Your task to perform on an android device: change notification settings in the gmail app Image 0: 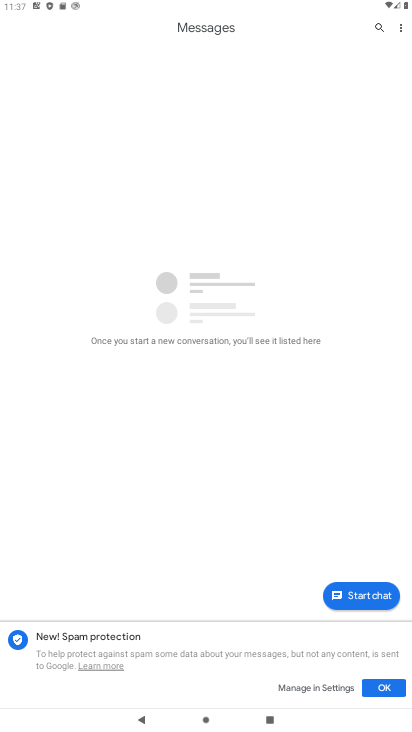
Step 0: drag from (49, 699) to (311, 4)
Your task to perform on an android device: change notification settings in the gmail app Image 1: 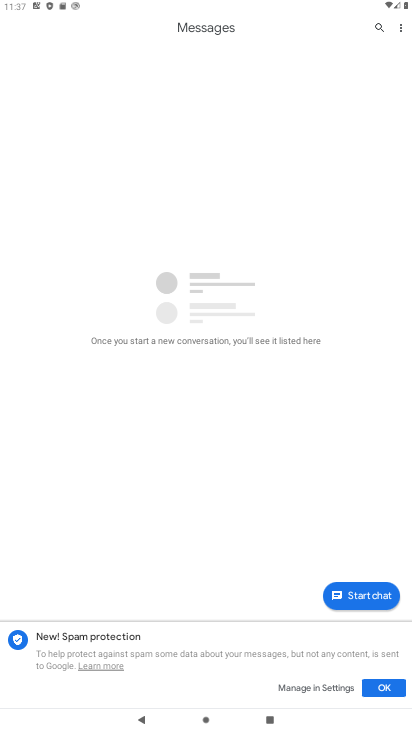
Step 1: press home button
Your task to perform on an android device: change notification settings in the gmail app Image 2: 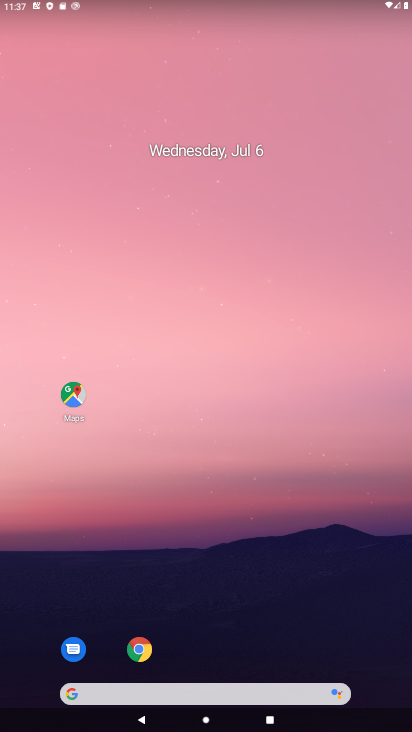
Step 2: drag from (46, 706) to (347, 6)
Your task to perform on an android device: change notification settings in the gmail app Image 3: 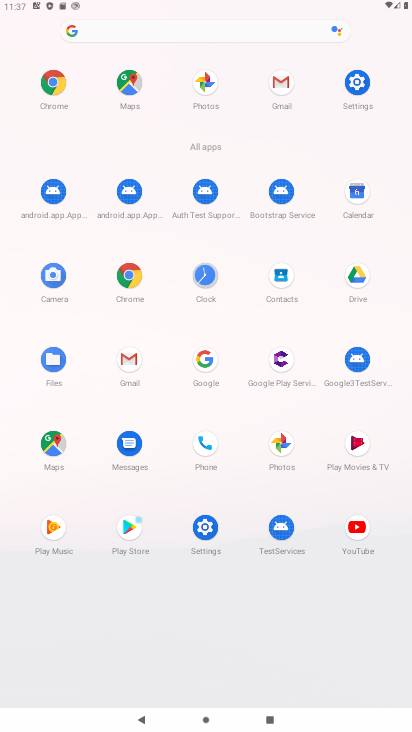
Step 3: click (126, 362)
Your task to perform on an android device: change notification settings in the gmail app Image 4: 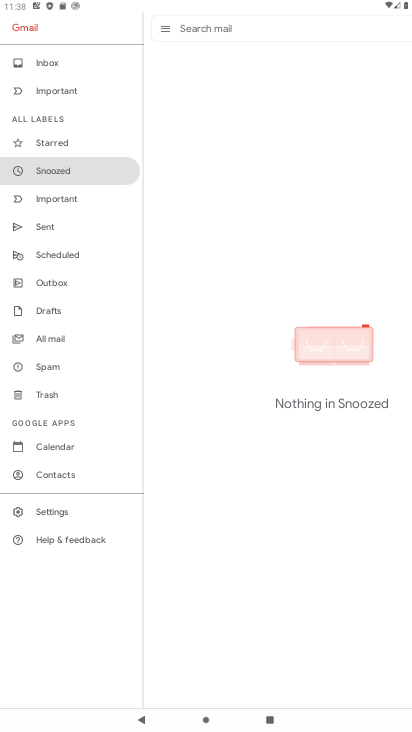
Step 4: click (66, 508)
Your task to perform on an android device: change notification settings in the gmail app Image 5: 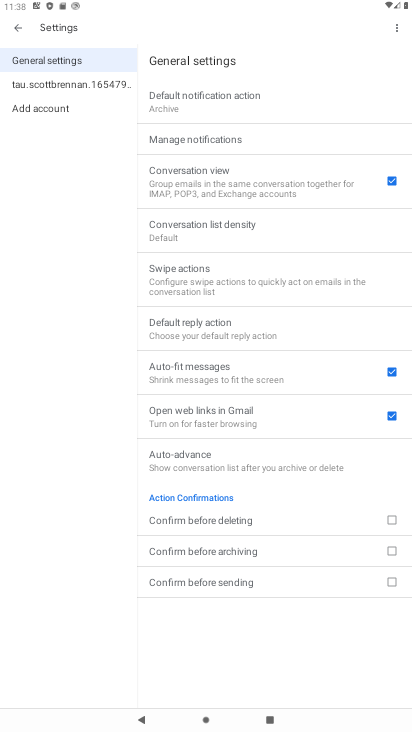
Step 5: click (198, 141)
Your task to perform on an android device: change notification settings in the gmail app Image 6: 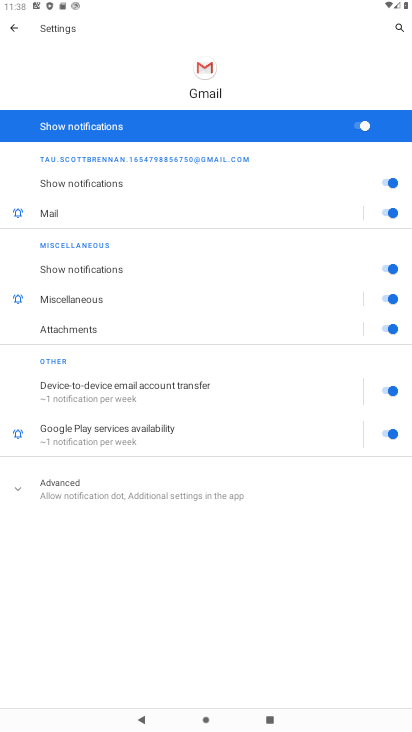
Step 6: click (361, 124)
Your task to perform on an android device: change notification settings in the gmail app Image 7: 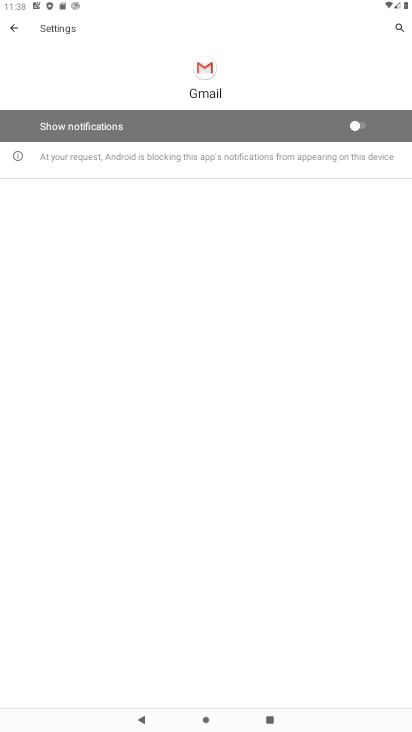
Step 7: task complete